Your task to perform on an android device: What's the weather? Image 0: 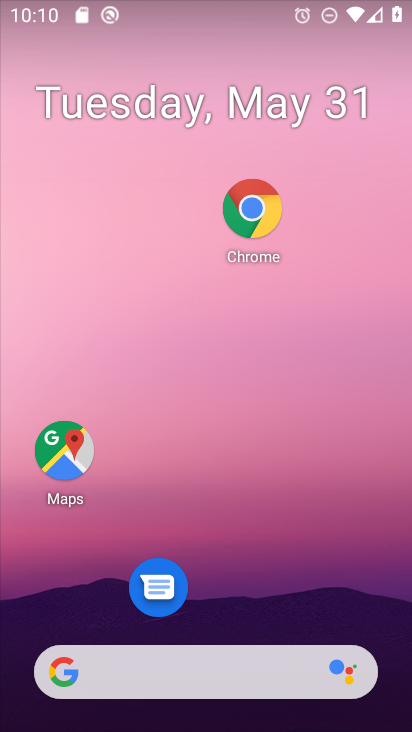
Step 0: press home button
Your task to perform on an android device: What's the weather? Image 1: 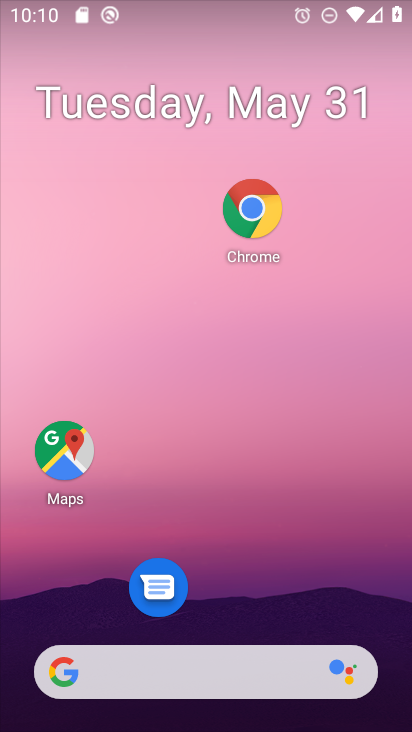
Step 1: drag from (21, 326) to (389, 303)
Your task to perform on an android device: What's the weather? Image 2: 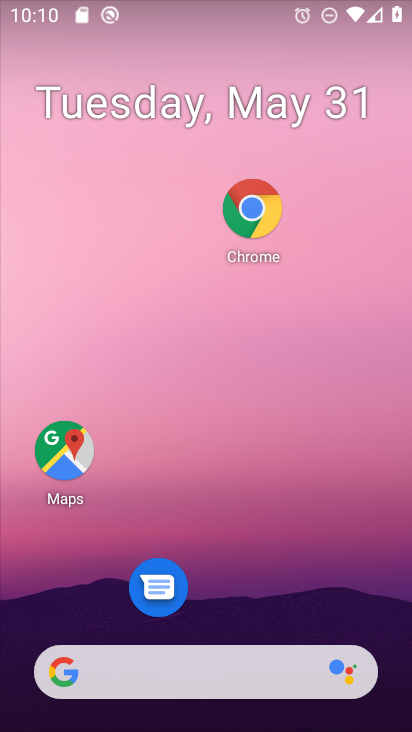
Step 2: drag from (7, 337) to (409, 320)
Your task to perform on an android device: What's the weather? Image 3: 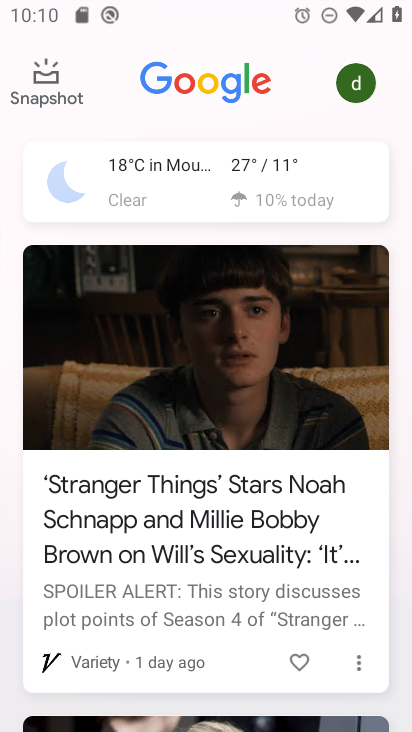
Step 3: click (274, 166)
Your task to perform on an android device: What's the weather? Image 4: 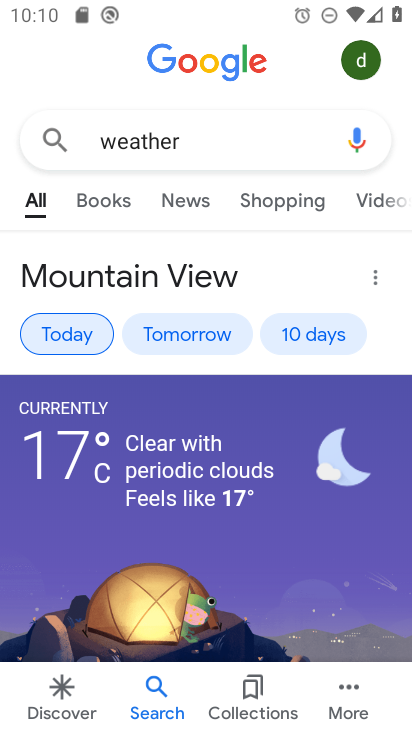
Step 4: task complete